Your task to perform on an android device: When is my next meeting? Image 0: 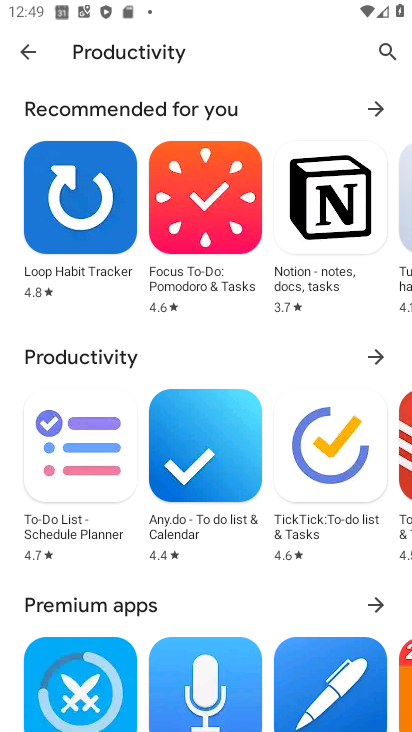
Step 0: press back button
Your task to perform on an android device: When is my next meeting? Image 1: 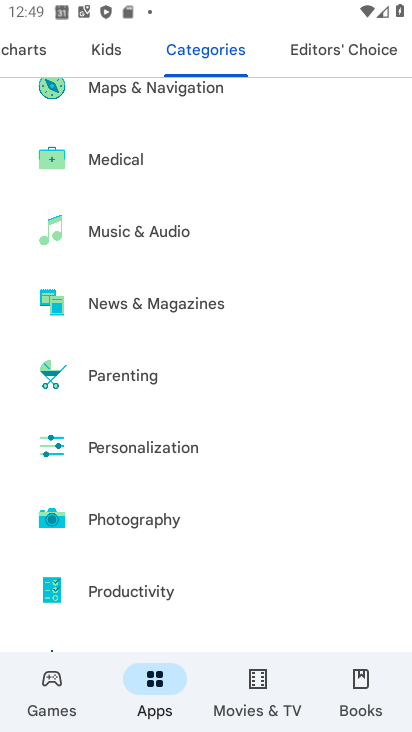
Step 1: press back button
Your task to perform on an android device: When is my next meeting? Image 2: 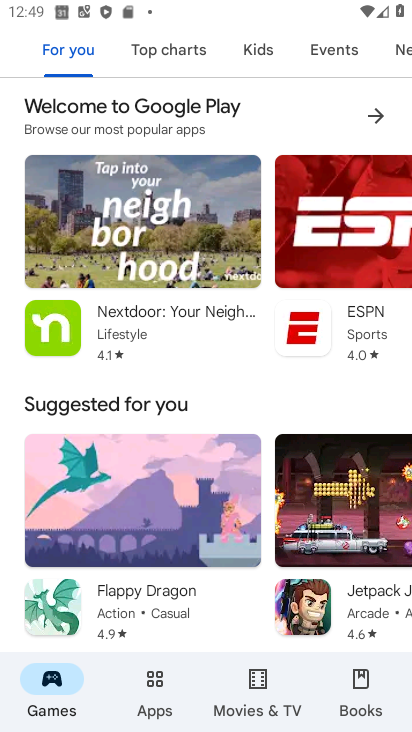
Step 2: press back button
Your task to perform on an android device: When is my next meeting? Image 3: 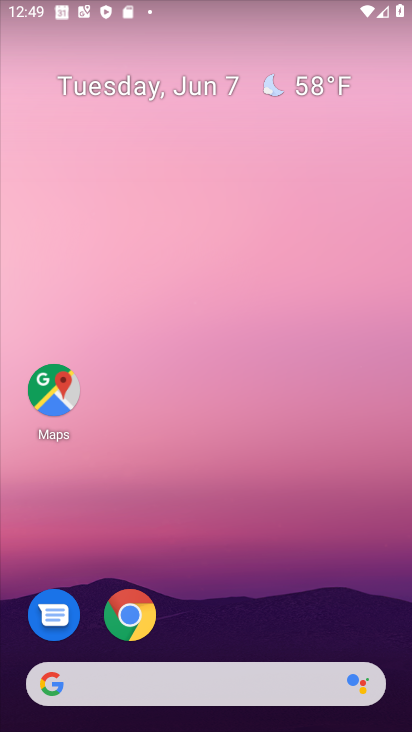
Step 3: drag from (231, 635) to (112, 144)
Your task to perform on an android device: When is my next meeting? Image 4: 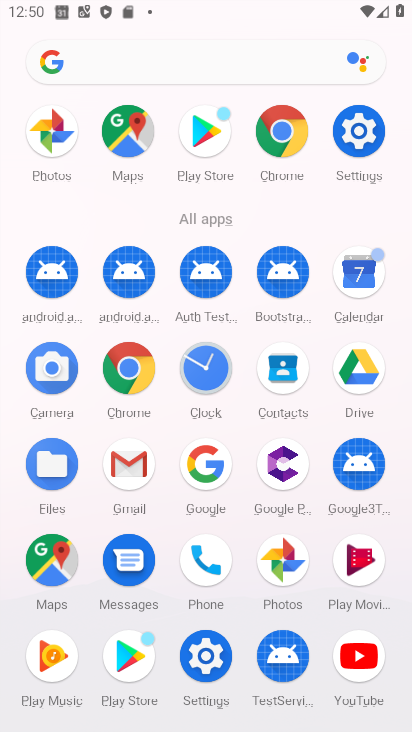
Step 4: click (361, 270)
Your task to perform on an android device: When is my next meeting? Image 5: 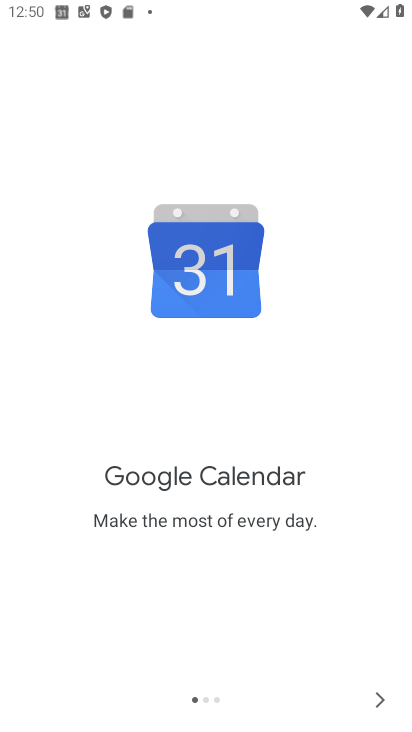
Step 5: click (384, 700)
Your task to perform on an android device: When is my next meeting? Image 6: 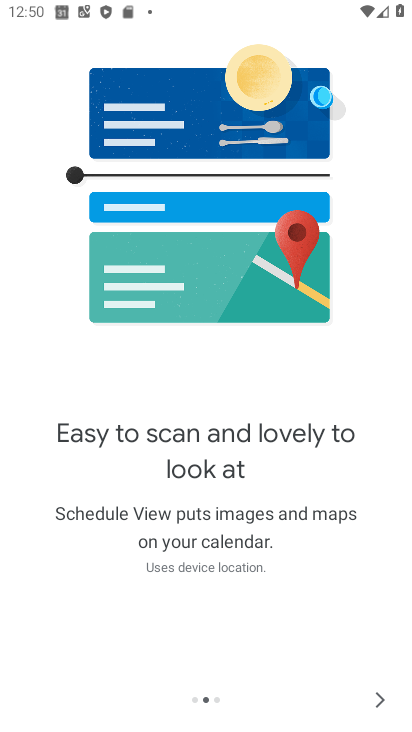
Step 6: click (384, 700)
Your task to perform on an android device: When is my next meeting? Image 7: 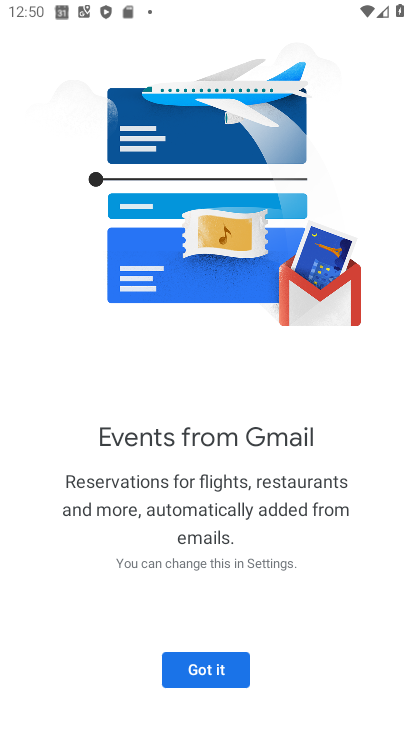
Step 7: click (208, 670)
Your task to perform on an android device: When is my next meeting? Image 8: 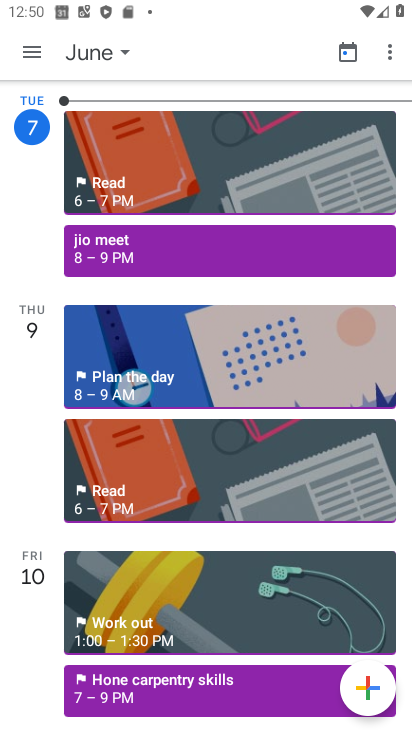
Step 8: click (123, 53)
Your task to perform on an android device: When is my next meeting? Image 9: 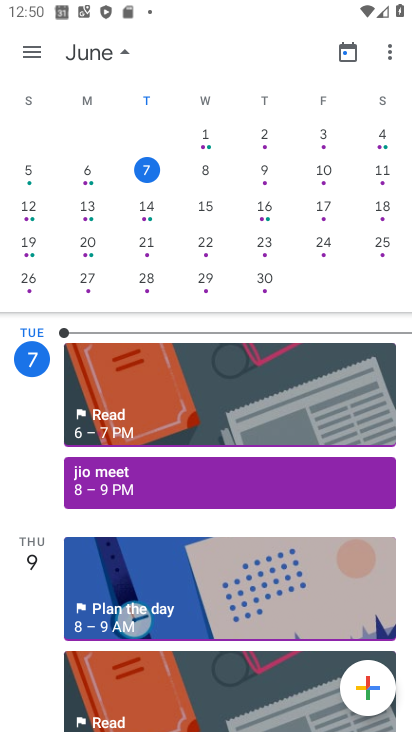
Step 9: click (266, 172)
Your task to perform on an android device: When is my next meeting? Image 10: 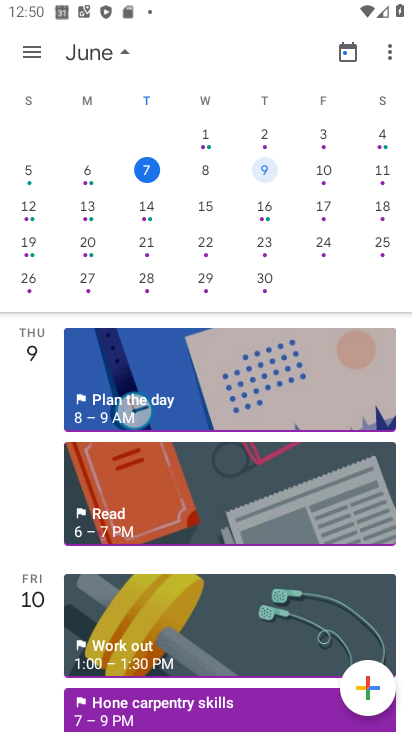
Step 10: click (31, 57)
Your task to perform on an android device: When is my next meeting? Image 11: 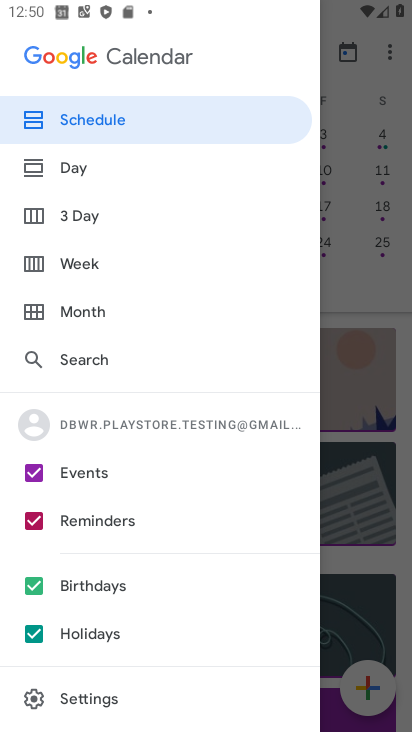
Step 11: click (64, 108)
Your task to perform on an android device: When is my next meeting? Image 12: 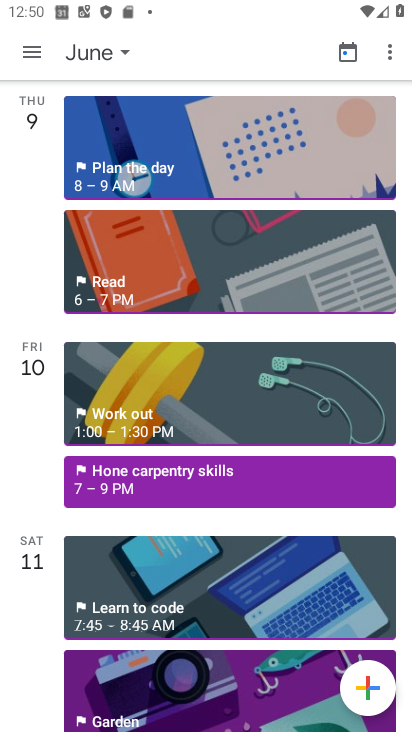
Step 12: task complete